Your task to perform on an android device: check battery use Image 0: 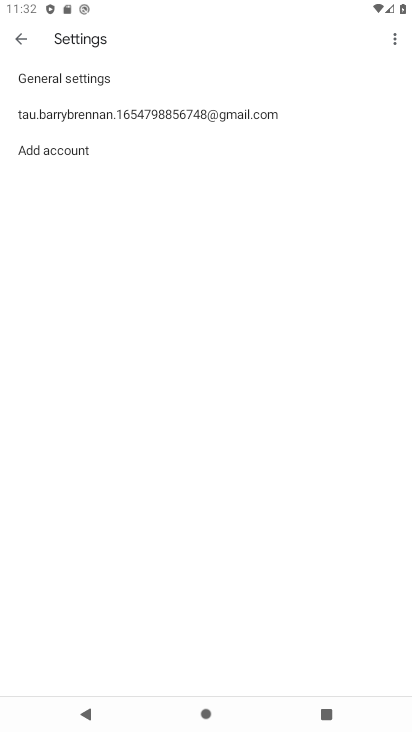
Step 0: press back button
Your task to perform on an android device: check battery use Image 1: 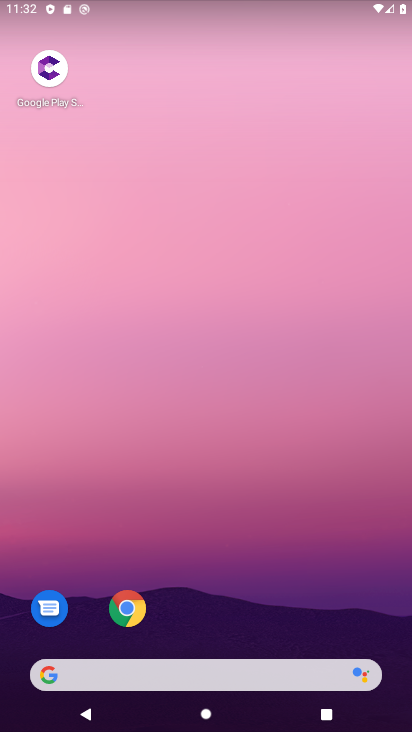
Step 1: drag from (187, 650) to (236, 57)
Your task to perform on an android device: check battery use Image 2: 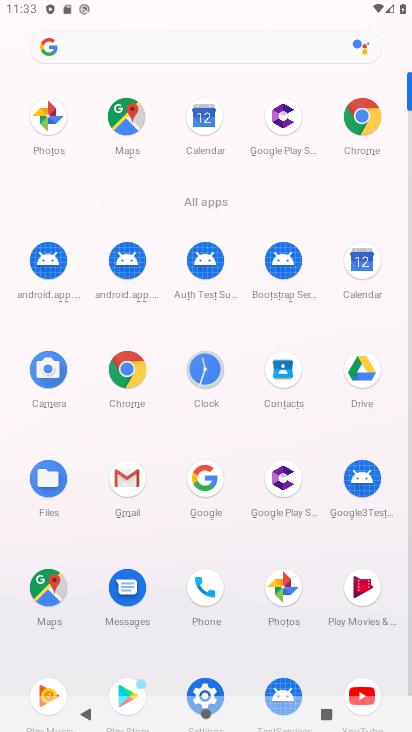
Step 2: click (208, 677)
Your task to perform on an android device: check battery use Image 3: 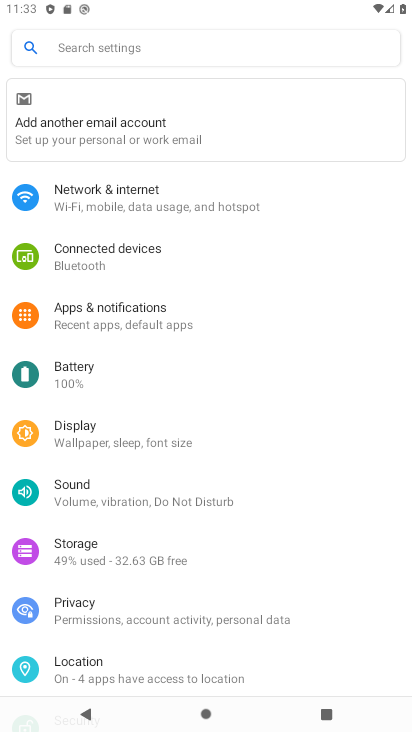
Step 3: click (96, 369)
Your task to perform on an android device: check battery use Image 4: 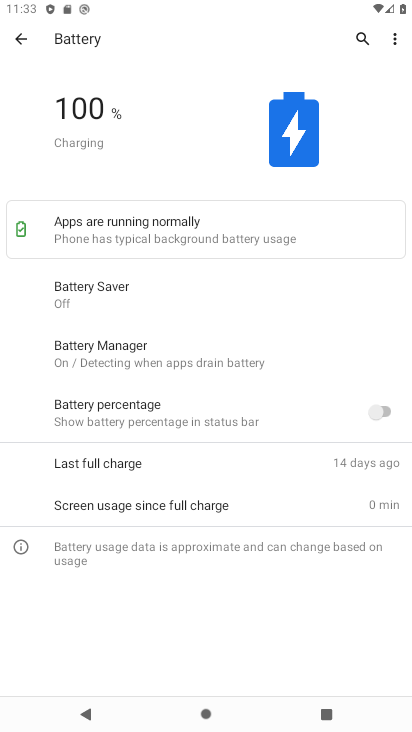
Step 4: click (394, 44)
Your task to perform on an android device: check battery use Image 5: 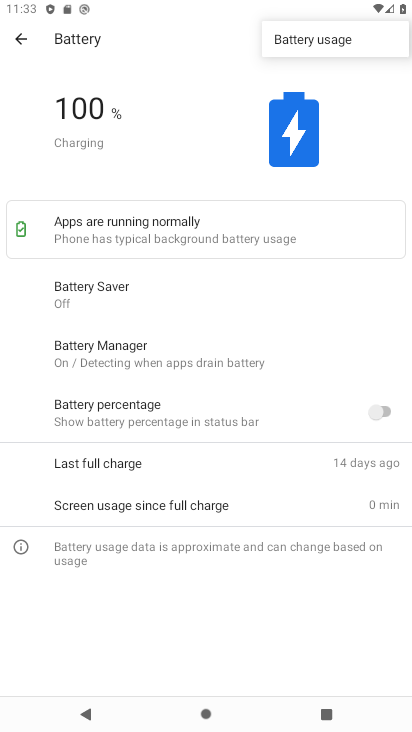
Step 5: click (326, 46)
Your task to perform on an android device: check battery use Image 6: 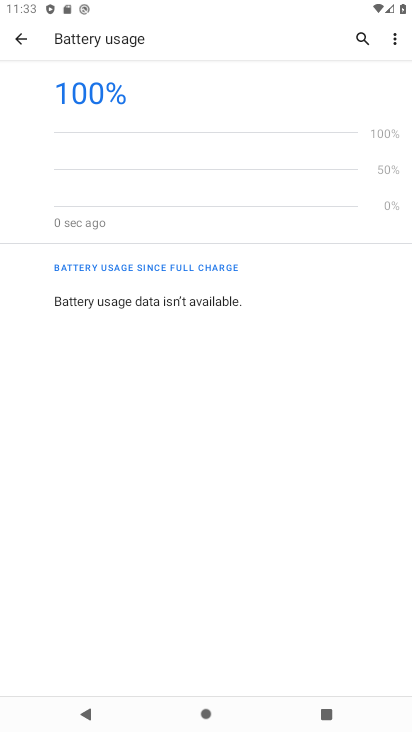
Step 6: task complete